Your task to perform on an android device: Open calendar and show me the fourth week of next month Image 0: 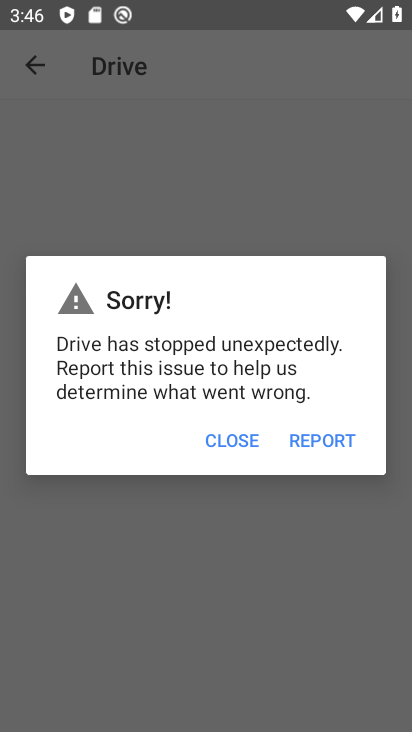
Step 0: press home button
Your task to perform on an android device: Open calendar and show me the fourth week of next month Image 1: 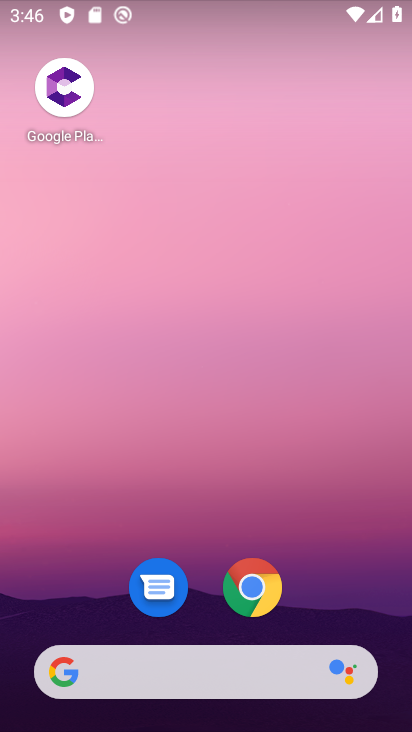
Step 1: drag from (245, 665) to (302, 125)
Your task to perform on an android device: Open calendar and show me the fourth week of next month Image 2: 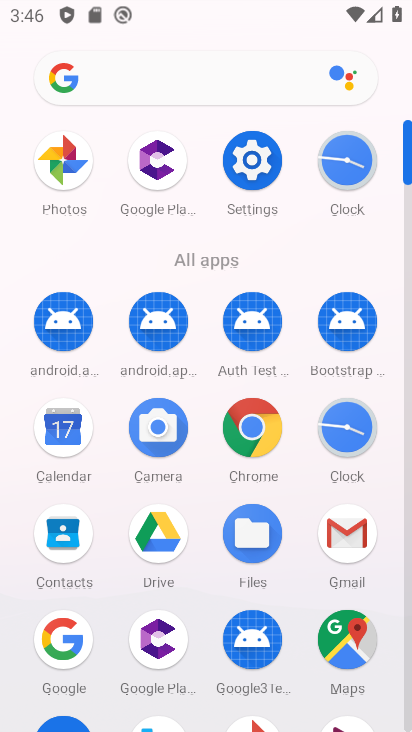
Step 2: click (268, 155)
Your task to perform on an android device: Open calendar and show me the fourth week of next month Image 3: 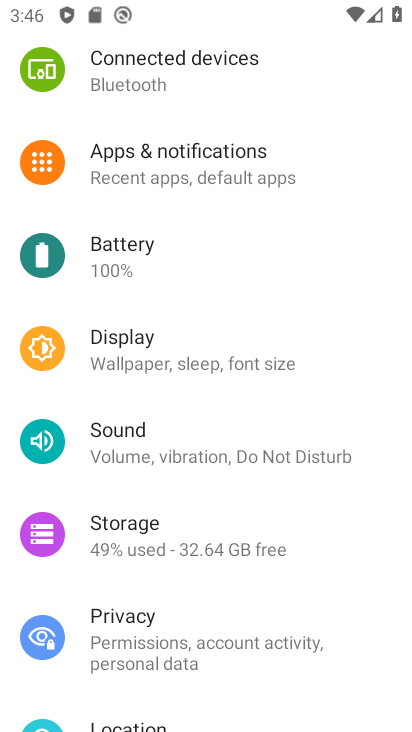
Step 3: drag from (247, 153) to (238, 495)
Your task to perform on an android device: Open calendar and show me the fourth week of next month Image 4: 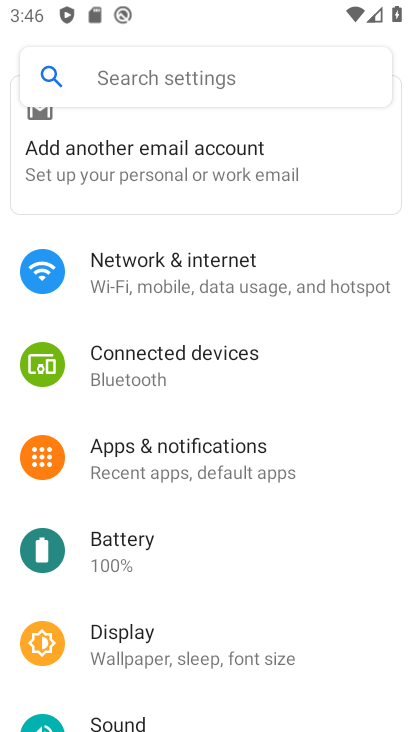
Step 4: press home button
Your task to perform on an android device: Open calendar and show me the fourth week of next month Image 5: 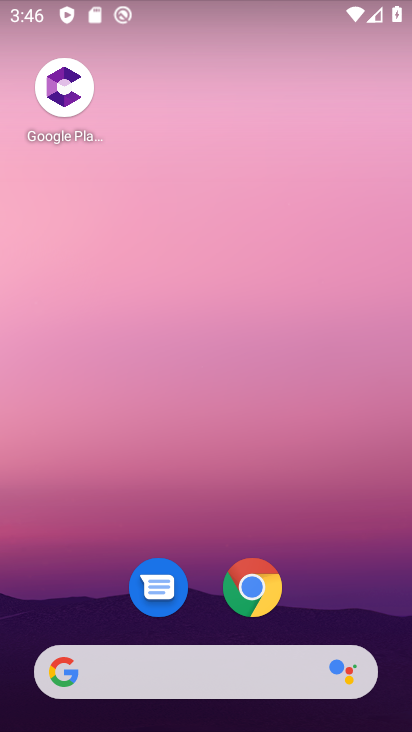
Step 5: drag from (237, 688) to (167, 134)
Your task to perform on an android device: Open calendar and show me the fourth week of next month Image 6: 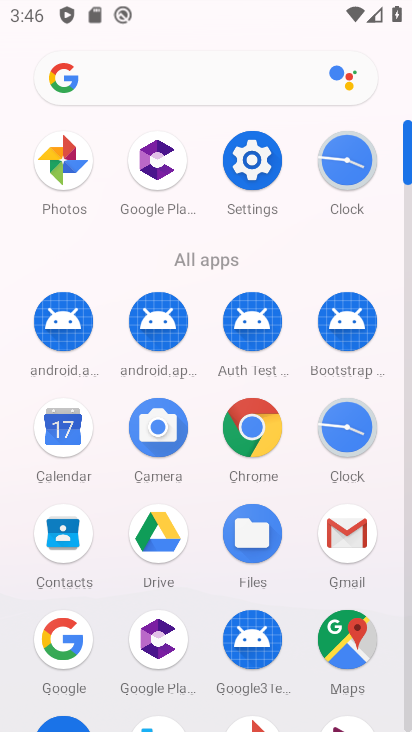
Step 6: click (58, 414)
Your task to perform on an android device: Open calendar and show me the fourth week of next month Image 7: 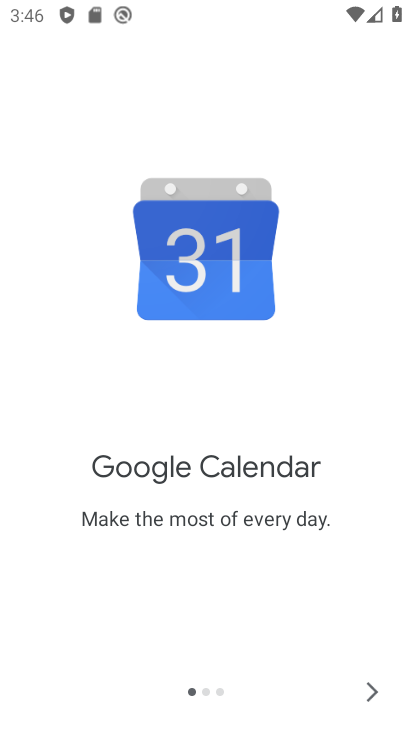
Step 7: click (366, 686)
Your task to perform on an android device: Open calendar and show me the fourth week of next month Image 8: 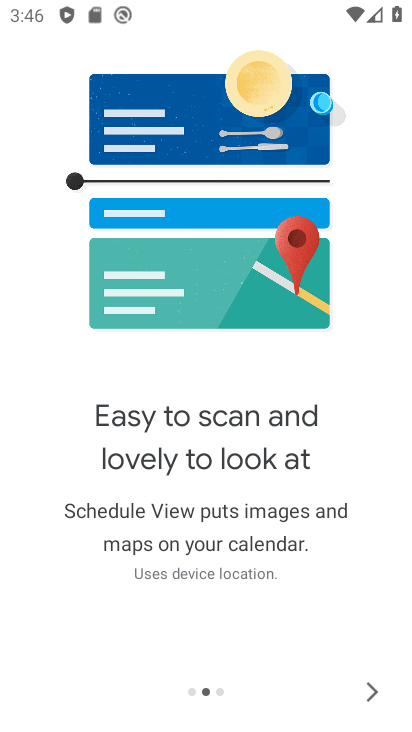
Step 8: click (357, 694)
Your task to perform on an android device: Open calendar and show me the fourth week of next month Image 9: 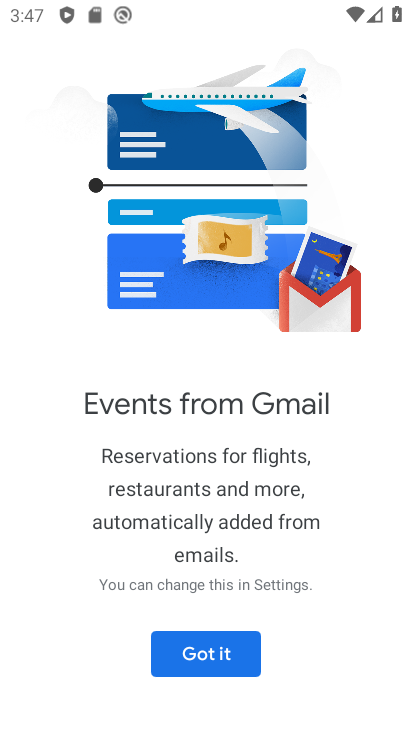
Step 9: click (208, 636)
Your task to perform on an android device: Open calendar and show me the fourth week of next month Image 10: 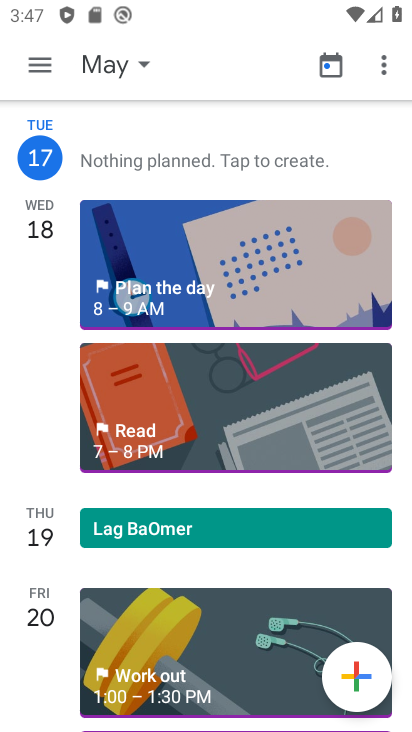
Step 10: click (47, 65)
Your task to perform on an android device: Open calendar and show me the fourth week of next month Image 11: 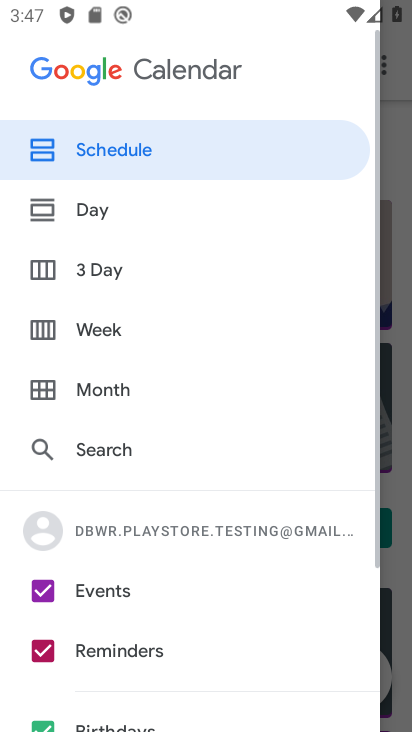
Step 11: click (100, 401)
Your task to perform on an android device: Open calendar and show me the fourth week of next month Image 12: 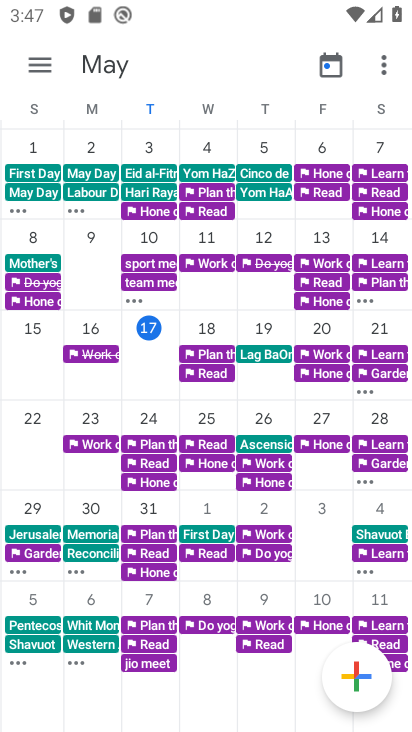
Step 12: drag from (377, 418) to (5, 433)
Your task to perform on an android device: Open calendar and show me the fourth week of next month Image 13: 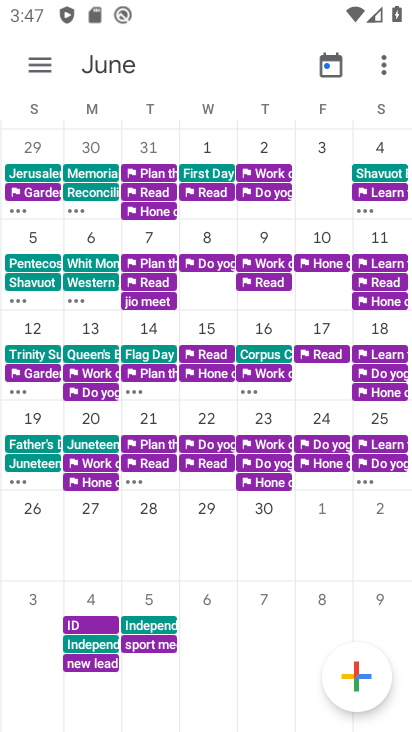
Step 13: click (104, 507)
Your task to perform on an android device: Open calendar and show me the fourth week of next month Image 14: 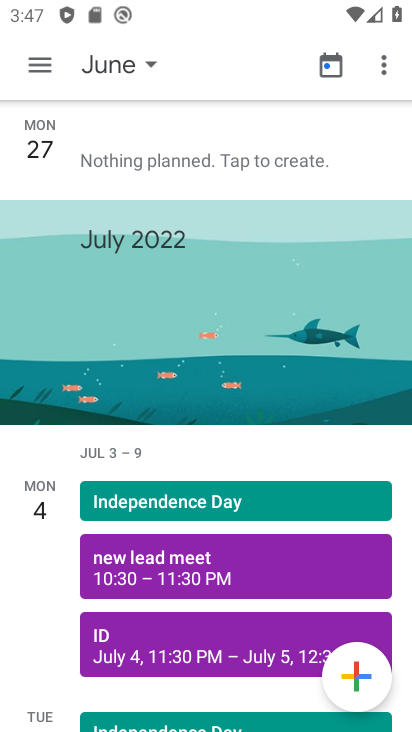
Step 14: task complete